Your task to perform on an android device: turn pop-ups off in chrome Image 0: 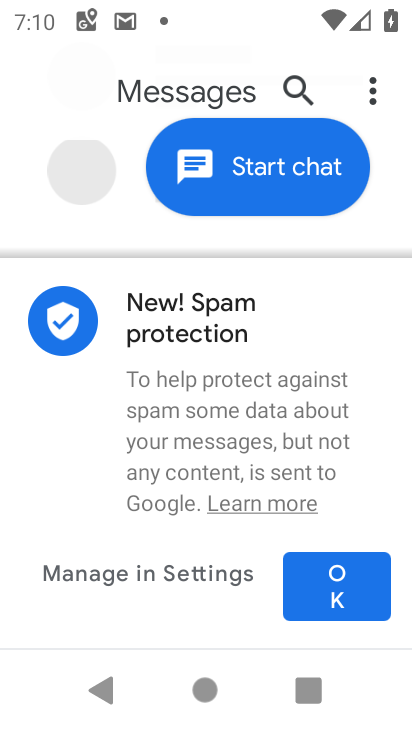
Step 0: click (322, 597)
Your task to perform on an android device: turn pop-ups off in chrome Image 1: 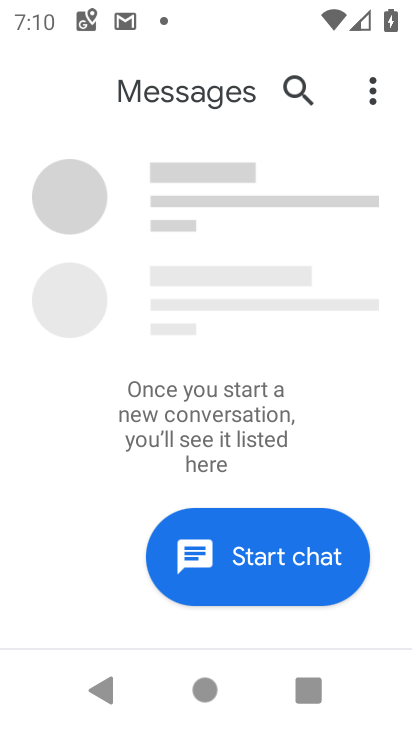
Step 1: press home button
Your task to perform on an android device: turn pop-ups off in chrome Image 2: 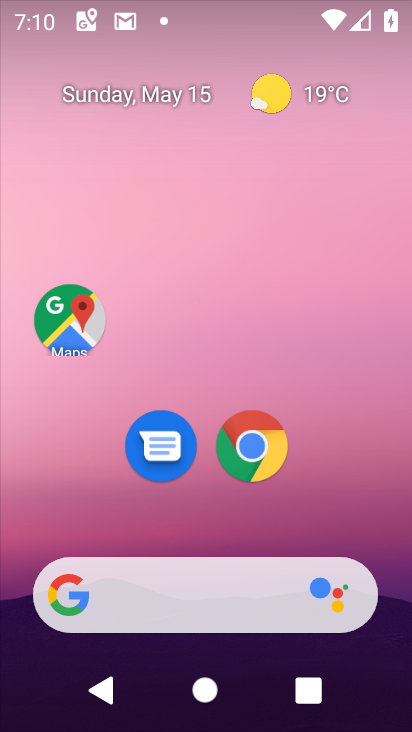
Step 2: drag from (325, 634) to (250, 219)
Your task to perform on an android device: turn pop-ups off in chrome Image 3: 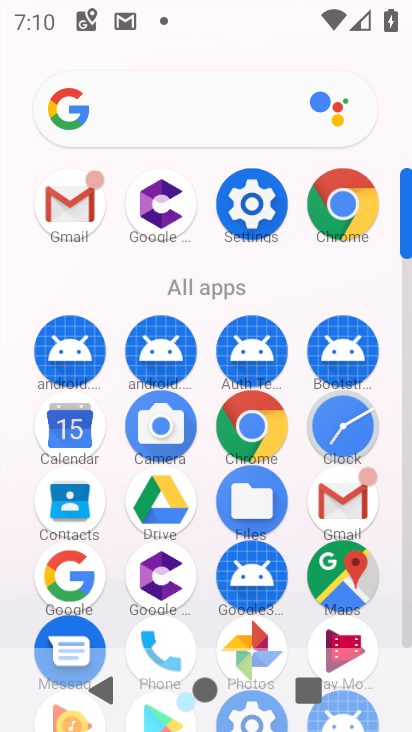
Step 3: click (240, 436)
Your task to perform on an android device: turn pop-ups off in chrome Image 4: 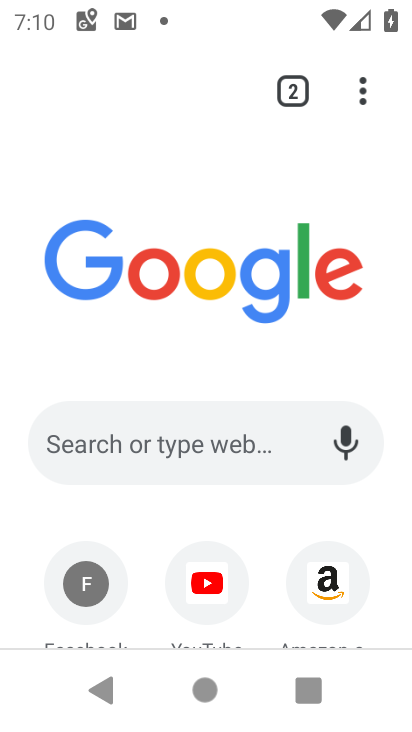
Step 4: click (356, 112)
Your task to perform on an android device: turn pop-ups off in chrome Image 5: 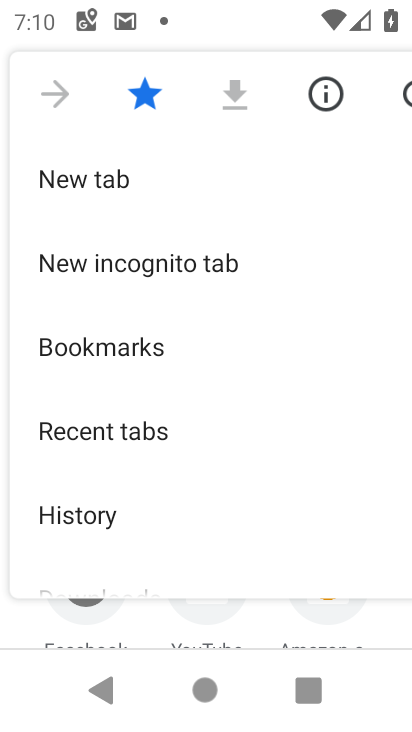
Step 5: drag from (147, 516) to (139, 266)
Your task to perform on an android device: turn pop-ups off in chrome Image 6: 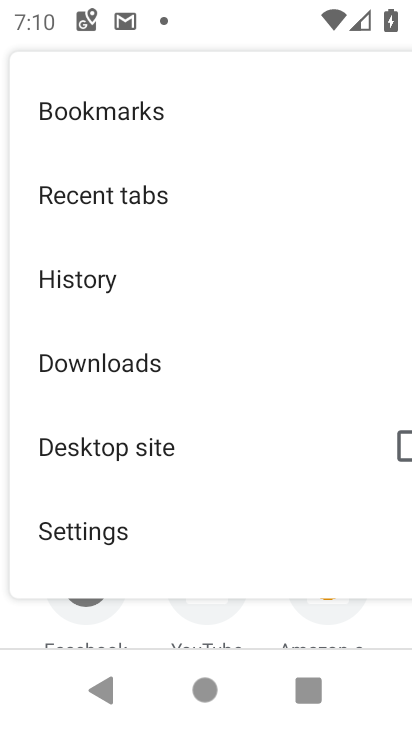
Step 6: click (118, 521)
Your task to perform on an android device: turn pop-ups off in chrome Image 7: 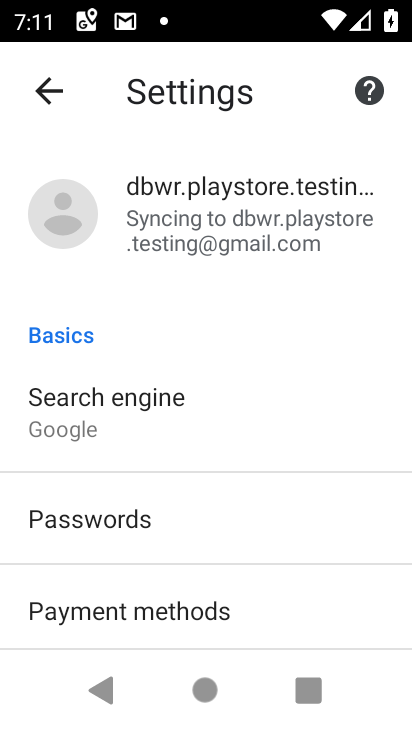
Step 7: drag from (167, 606) to (228, 269)
Your task to perform on an android device: turn pop-ups off in chrome Image 8: 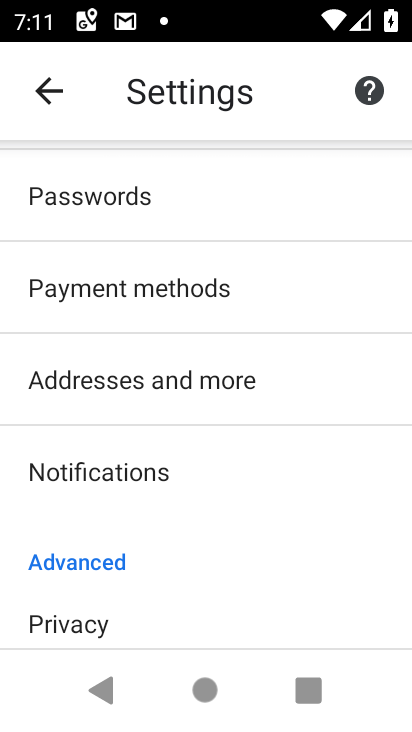
Step 8: drag from (197, 552) to (207, 224)
Your task to perform on an android device: turn pop-ups off in chrome Image 9: 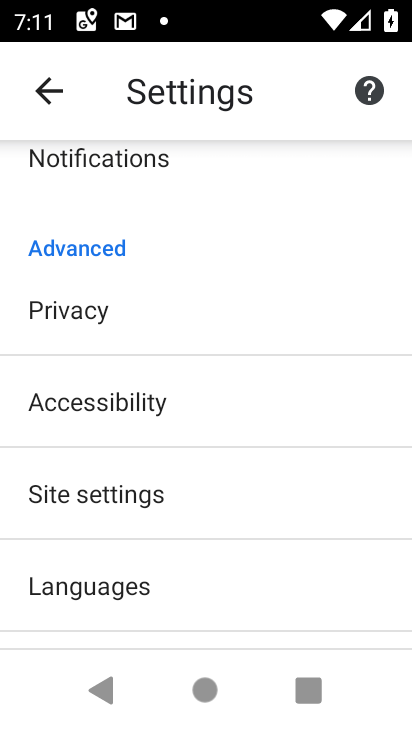
Step 9: click (127, 594)
Your task to perform on an android device: turn pop-ups off in chrome Image 10: 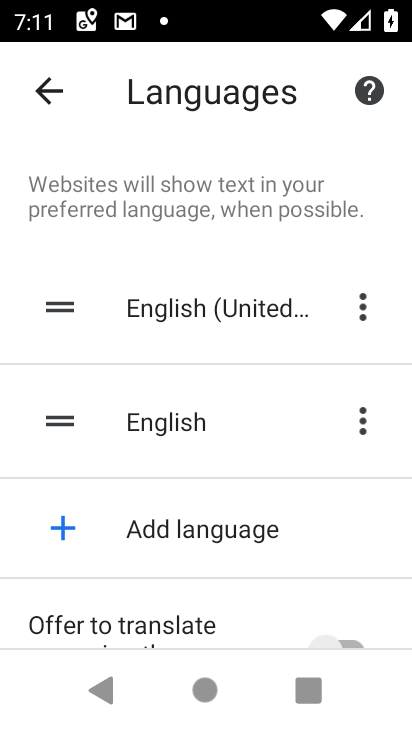
Step 10: drag from (132, 580) to (148, 308)
Your task to perform on an android device: turn pop-ups off in chrome Image 11: 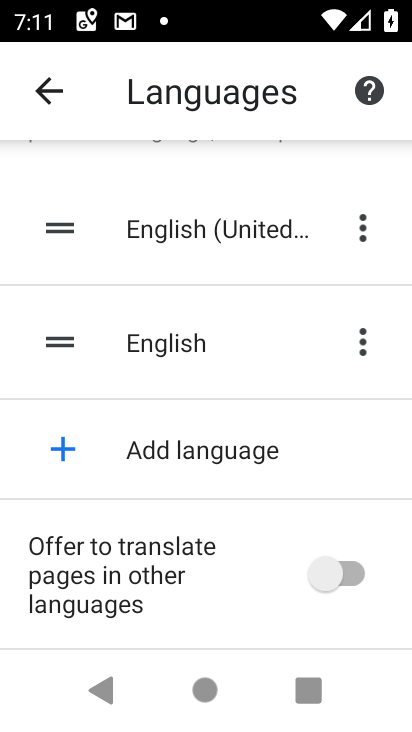
Step 11: click (48, 106)
Your task to perform on an android device: turn pop-ups off in chrome Image 12: 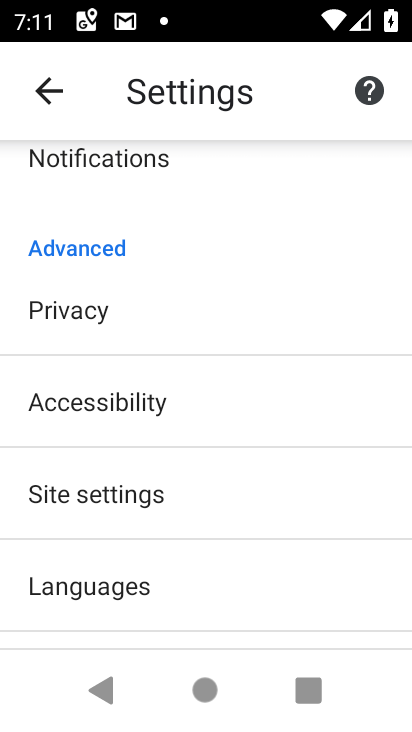
Step 12: click (147, 509)
Your task to perform on an android device: turn pop-ups off in chrome Image 13: 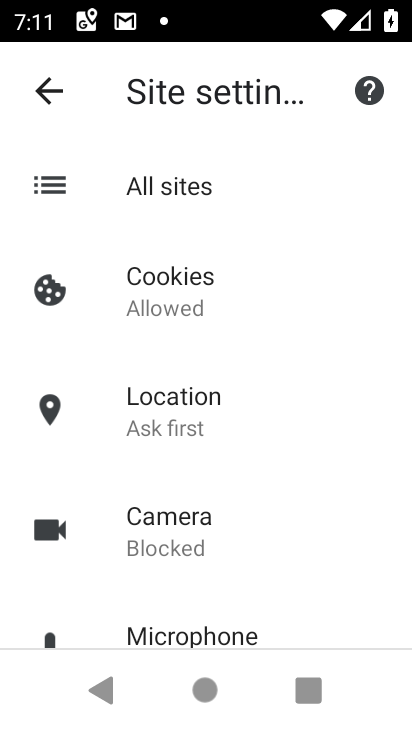
Step 13: drag from (202, 555) to (221, 357)
Your task to perform on an android device: turn pop-ups off in chrome Image 14: 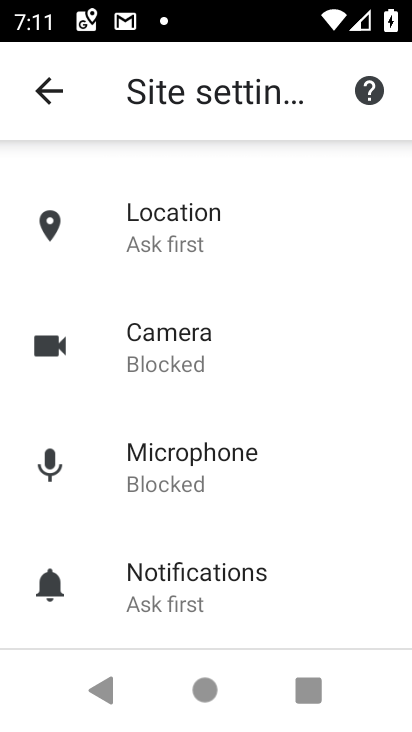
Step 14: drag from (225, 540) to (249, 307)
Your task to perform on an android device: turn pop-ups off in chrome Image 15: 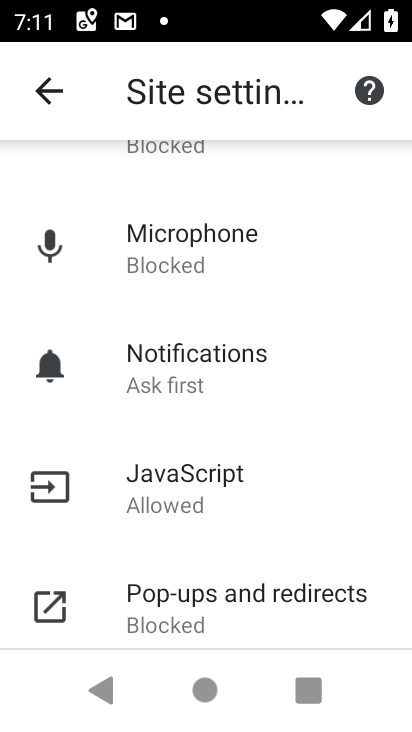
Step 15: click (194, 590)
Your task to perform on an android device: turn pop-ups off in chrome Image 16: 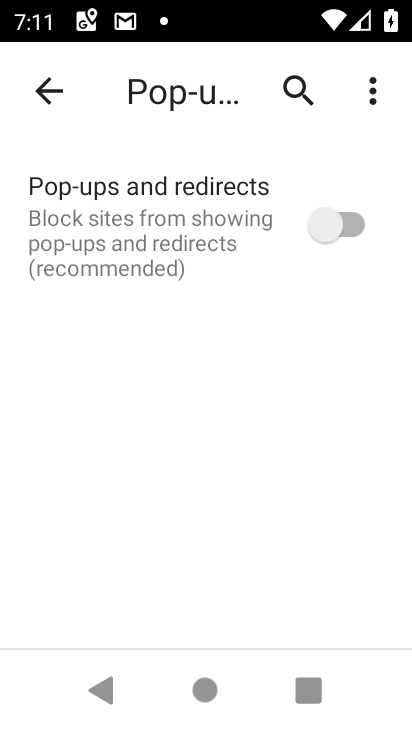
Step 16: click (347, 205)
Your task to perform on an android device: turn pop-ups off in chrome Image 17: 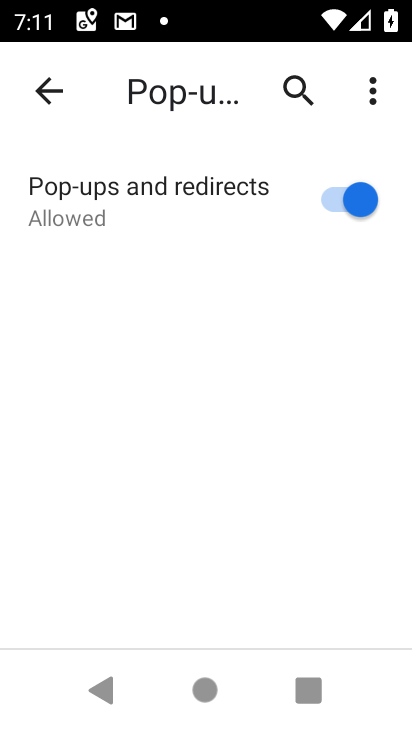
Step 17: click (335, 204)
Your task to perform on an android device: turn pop-ups off in chrome Image 18: 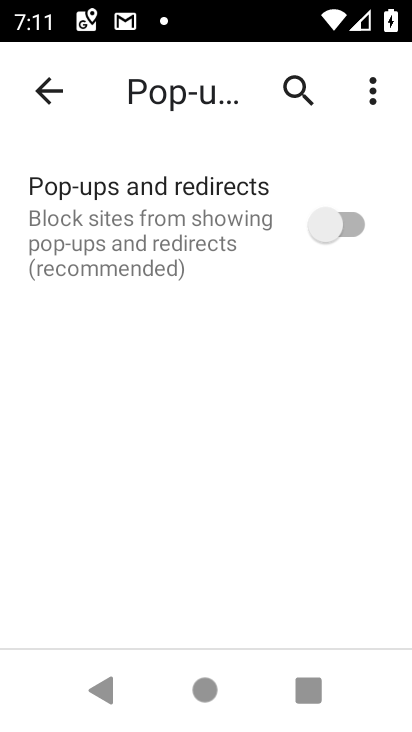
Step 18: task complete